Your task to perform on an android device: change the clock style Image 0: 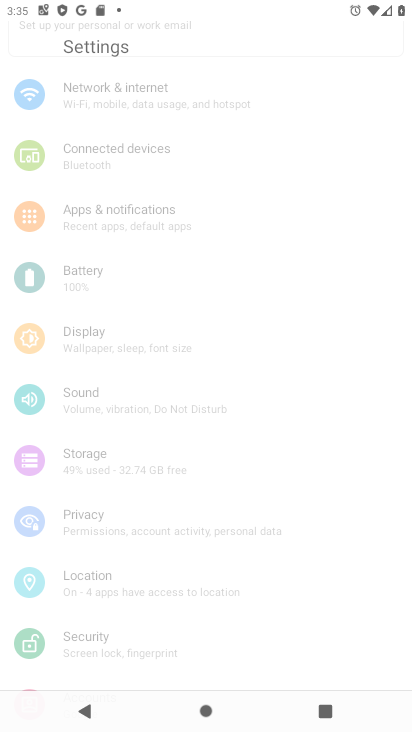
Step 0: click (287, 630)
Your task to perform on an android device: change the clock style Image 1: 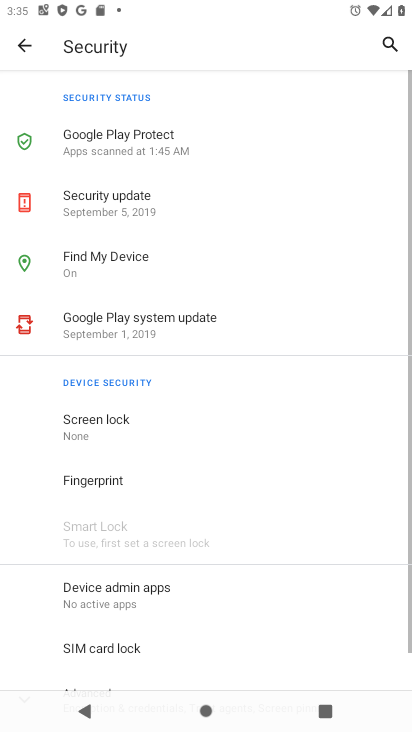
Step 1: press home button
Your task to perform on an android device: change the clock style Image 2: 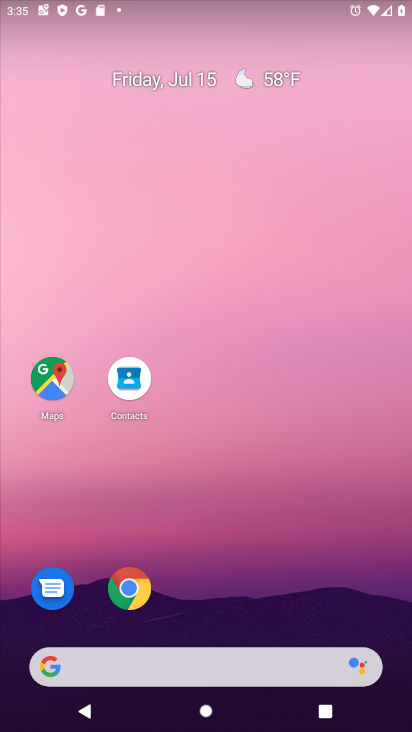
Step 2: drag from (241, 628) to (250, 222)
Your task to perform on an android device: change the clock style Image 3: 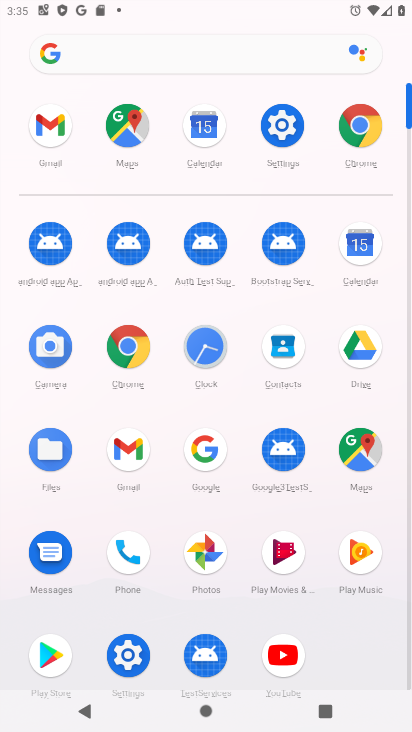
Step 3: click (293, 161)
Your task to perform on an android device: change the clock style Image 4: 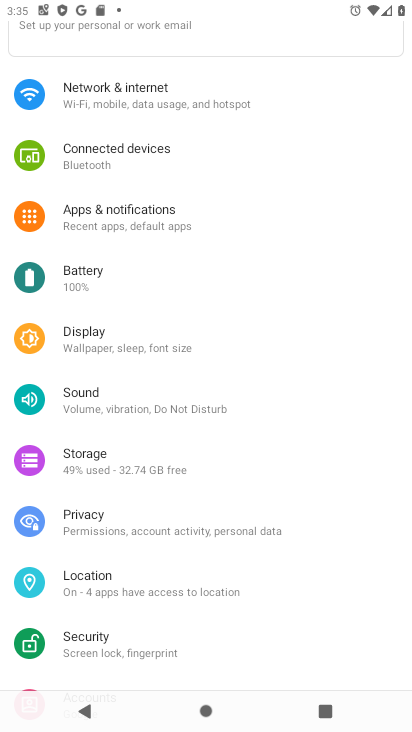
Step 4: press back button
Your task to perform on an android device: change the clock style Image 5: 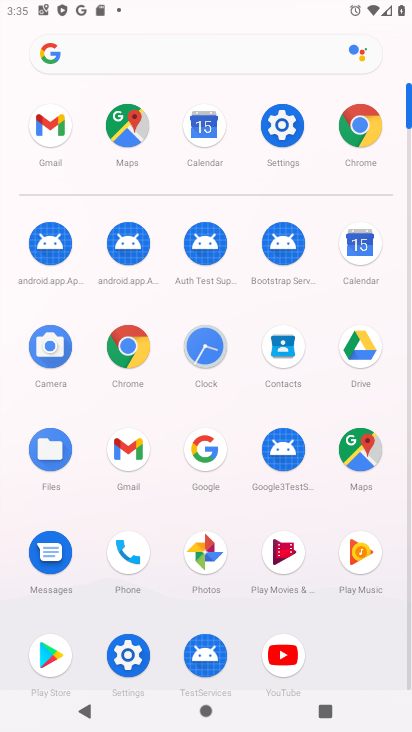
Step 5: click (212, 354)
Your task to perform on an android device: change the clock style Image 6: 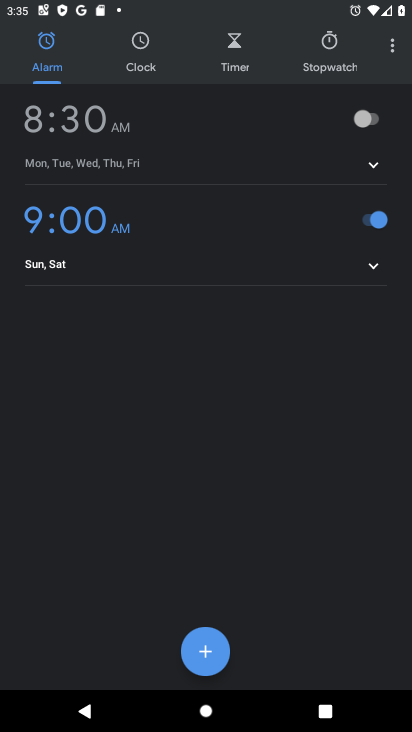
Step 6: click (393, 47)
Your task to perform on an android device: change the clock style Image 7: 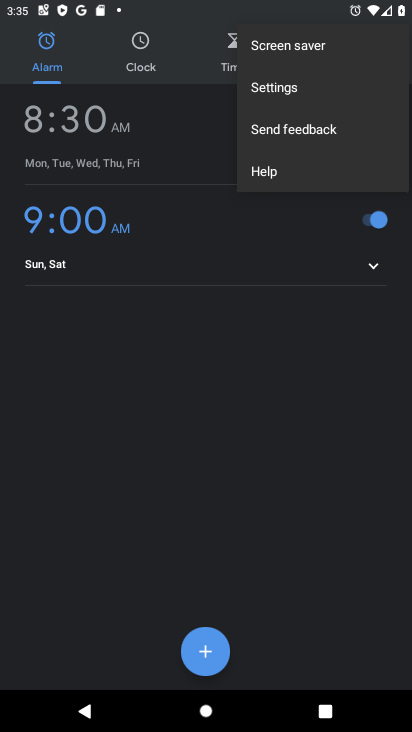
Step 7: click (321, 87)
Your task to perform on an android device: change the clock style Image 8: 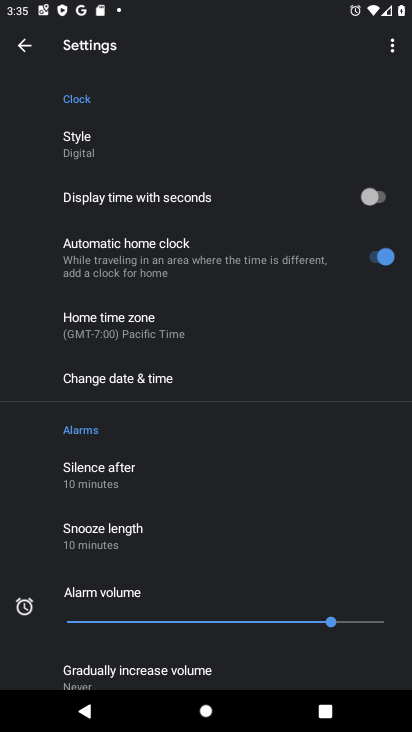
Step 8: click (162, 159)
Your task to perform on an android device: change the clock style Image 9: 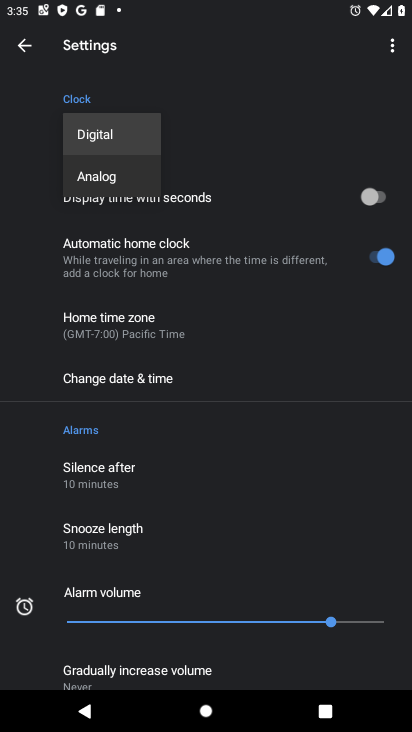
Step 9: click (127, 180)
Your task to perform on an android device: change the clock style Image 10: 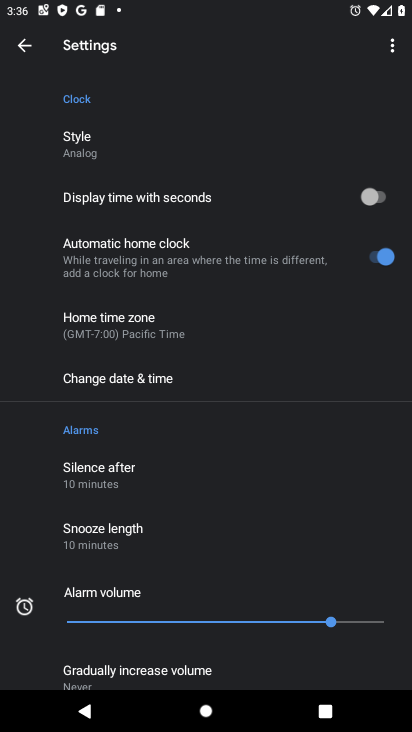
Step 10: task complete